Your task to perform on an android device: open chrome privacy settings Image 0: 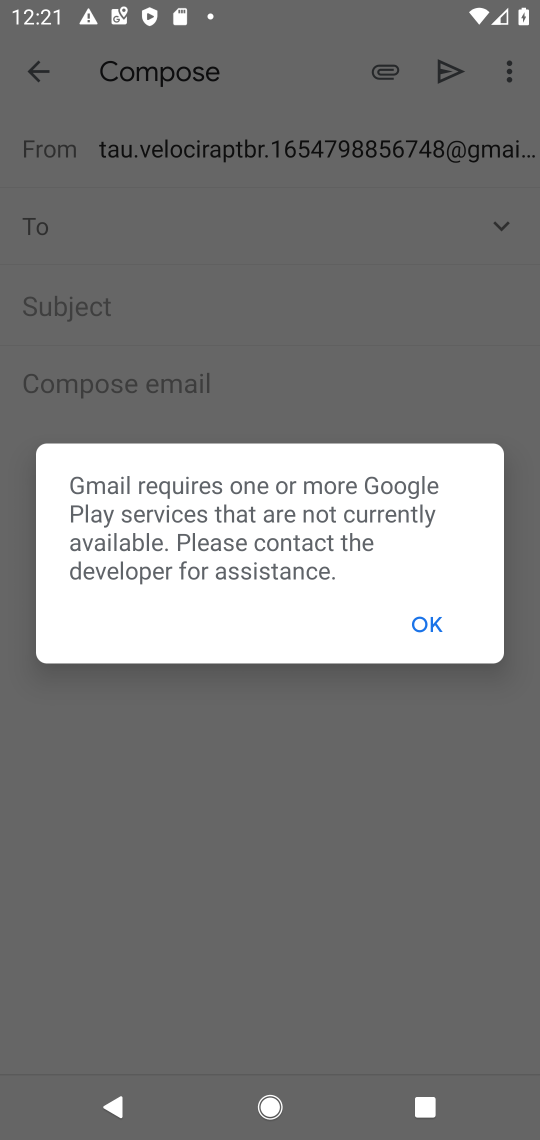
Step 0: press home button
Your task to perform on an android device: open chrome privacy settings Image 1: 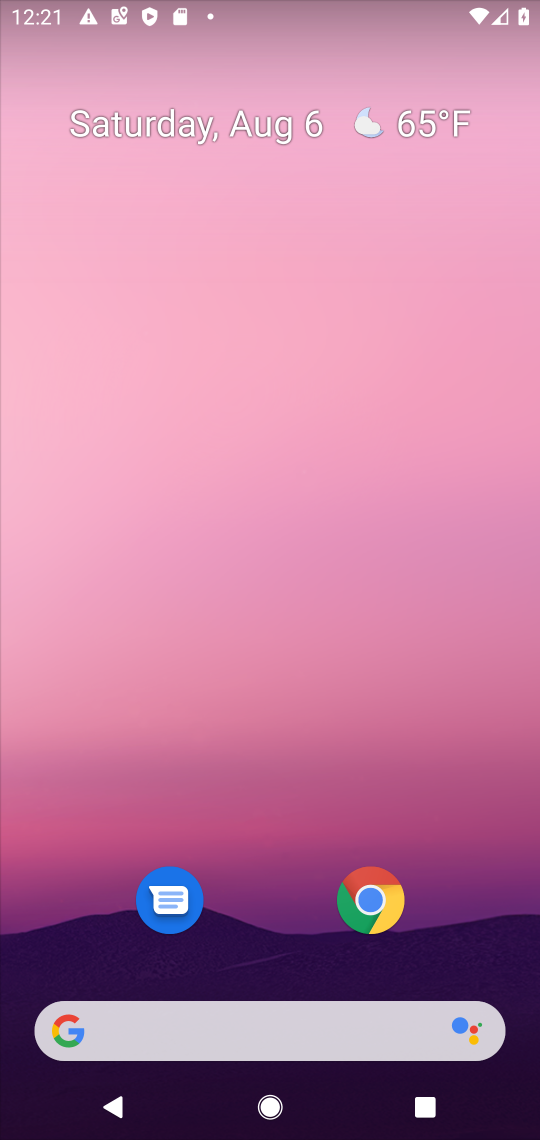
Step 1: drag from (266, 485) to (266, 106)
Your task to perform on an android device: open chrome privacy settings Image 2: 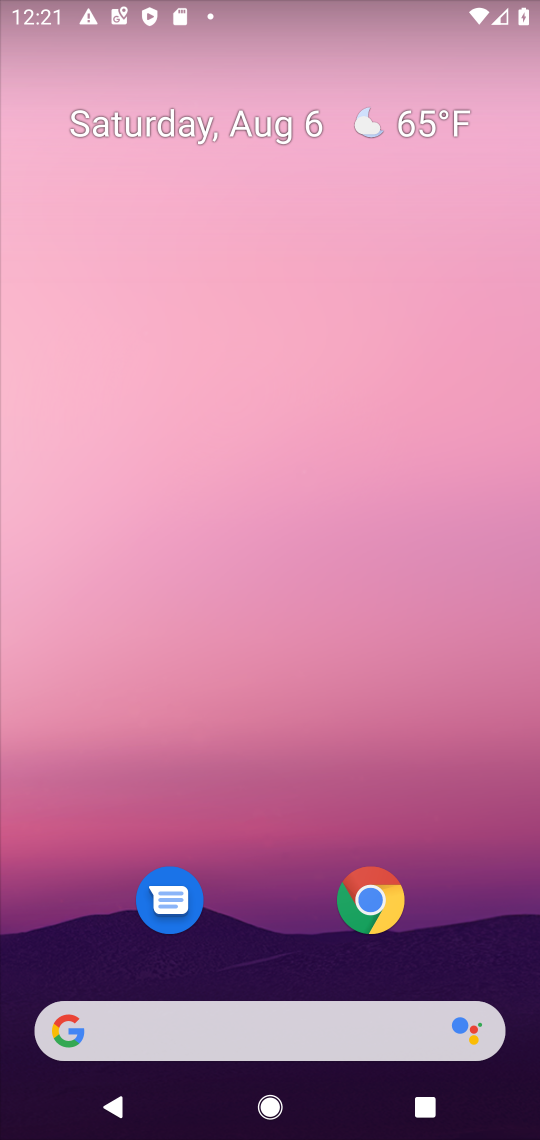
Step 2: click (372, 905)
Your task to perform on an android device: open chrome privacy settings Image 3: 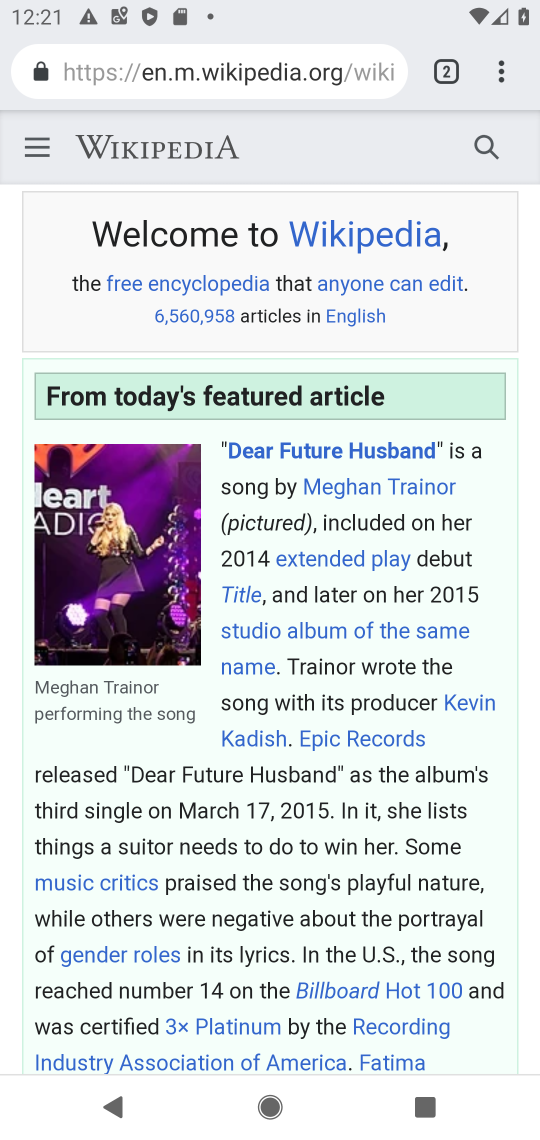
Step 3: click (502, 84)
Your task to perform on an android device: open chrome privacy settings Image 4: 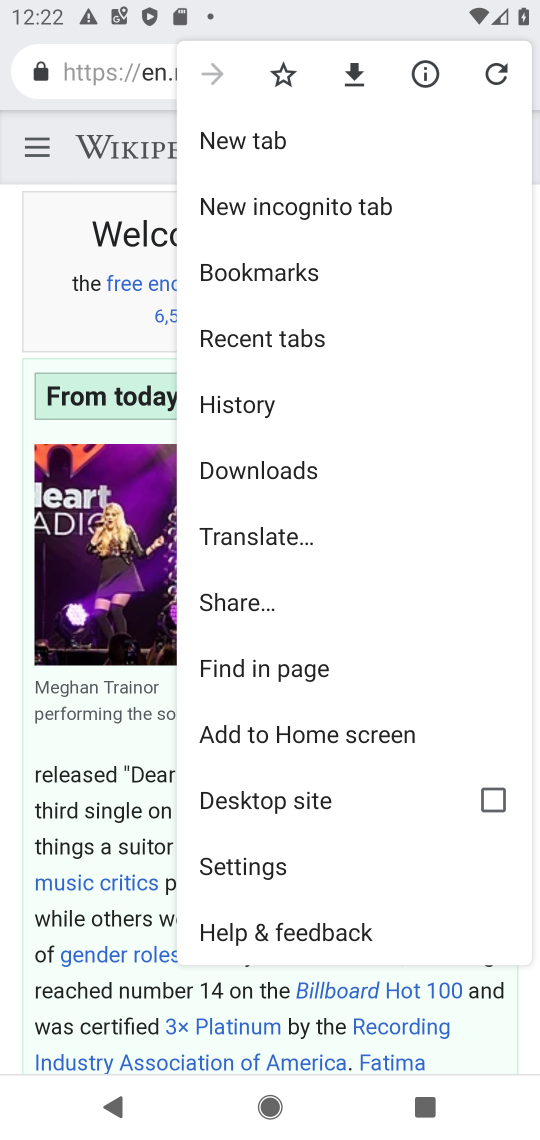
Step 4: click (263, 860)
Your task to perform on an android device: open chrome privacy settings Image 5: 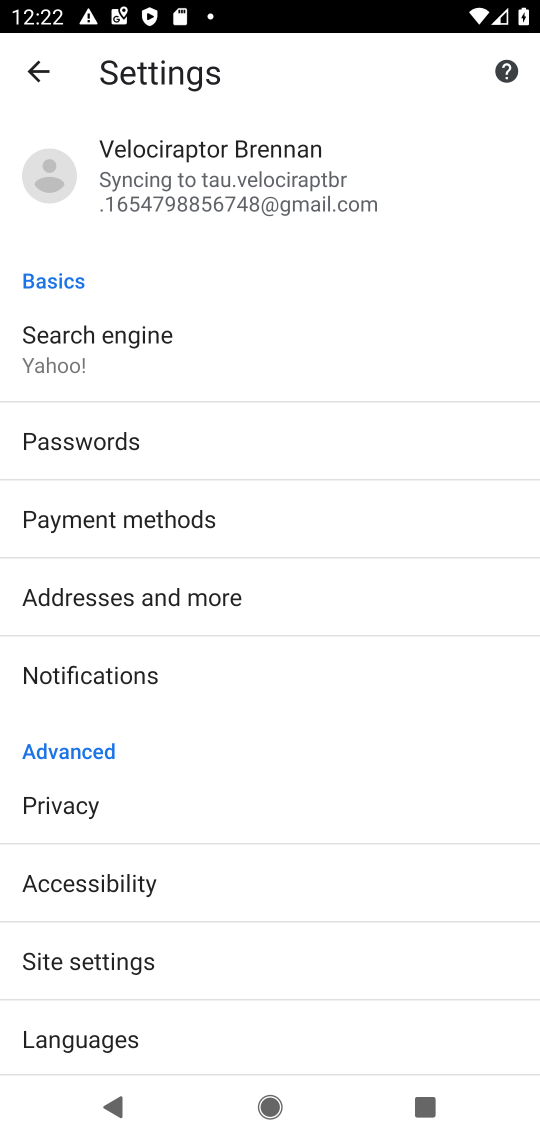
Step 5: click (61, 798)
Your task to perform on an android device: open chrome privacy settings Image 6: 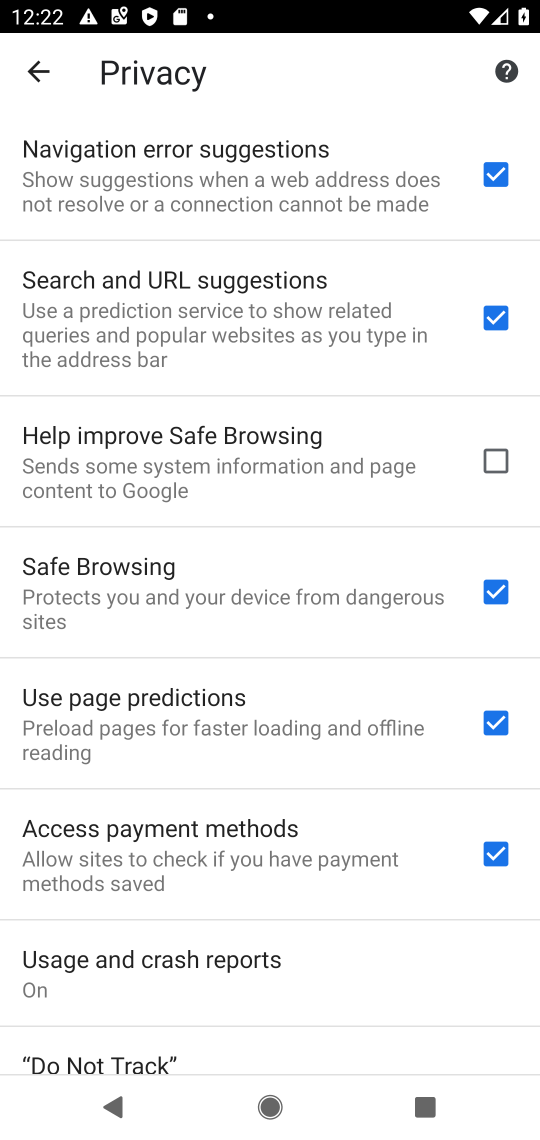
Step 6: task complete